Your task to perform on an android device: Open CNN.com Image 0: 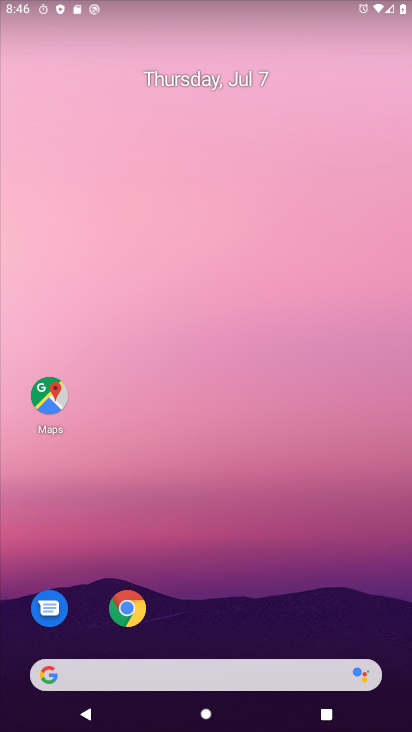
Step 0: press home button
Your task to perform on an android device: Open CNN.com Image 1: 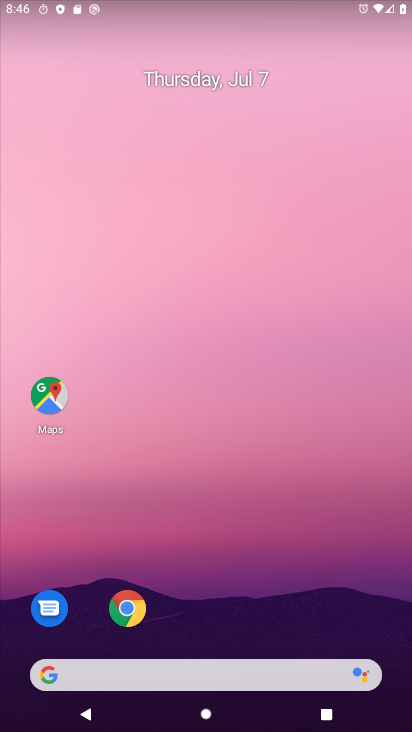
Step 1: drag from (190, 658) to (201, 281)
Your task to perform on an android device: Open CNN.com Image 2: 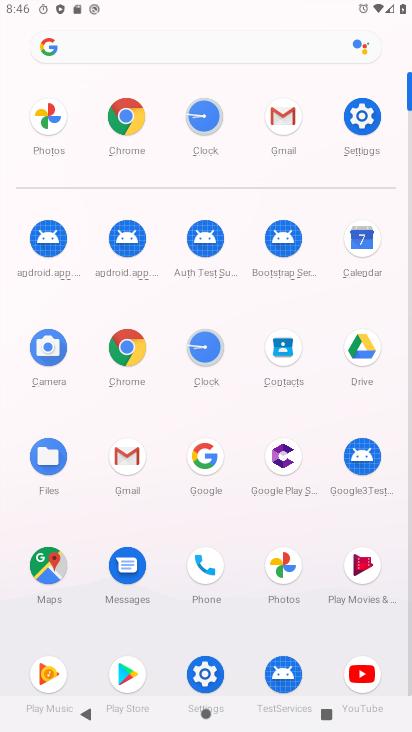
Step 2: click (200, 462)
Your task to perform on an android device: Open CNN.com Image 3: 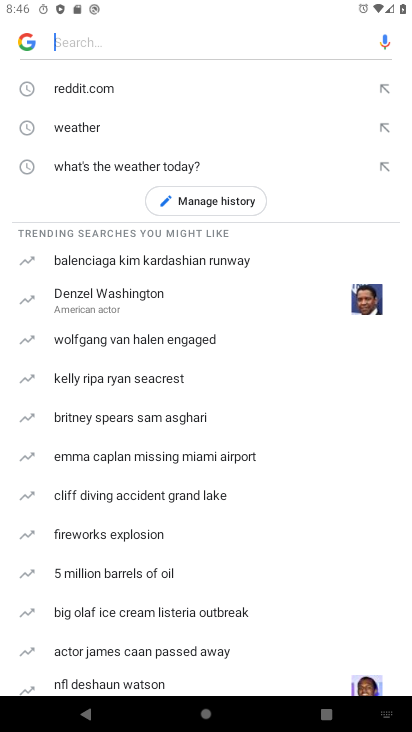
Step 3: click (101, 52)
Your task to perform on an android device: Open CNN.com Image 4: 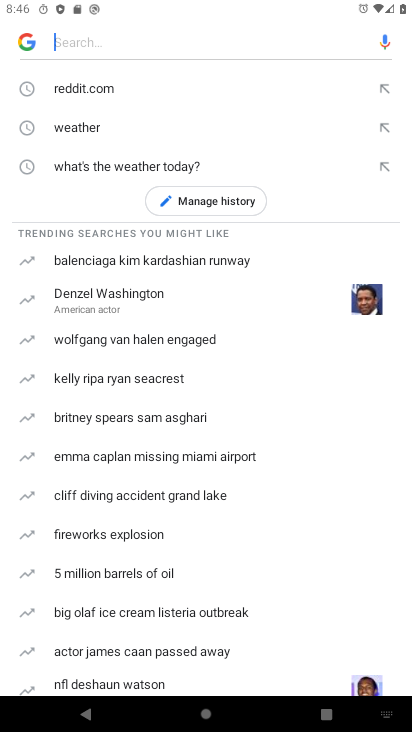
Step 4: type "CNN.com"
Your task to perform on an android device: Open CNN.com Image 5: 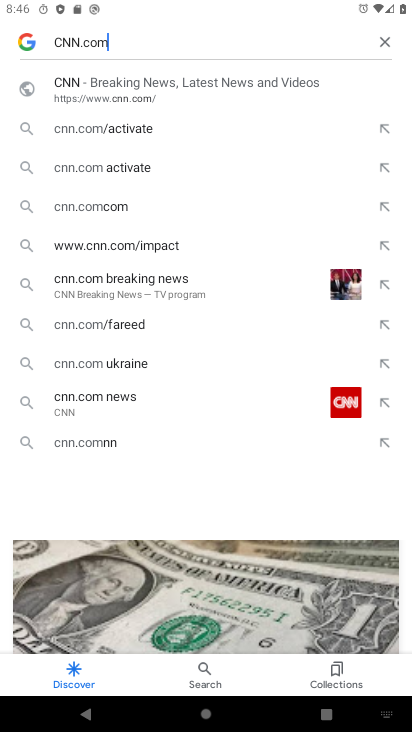
Step 5: click (88, 87)
Your task to perform on an android device: Open CNN.com Image 6: 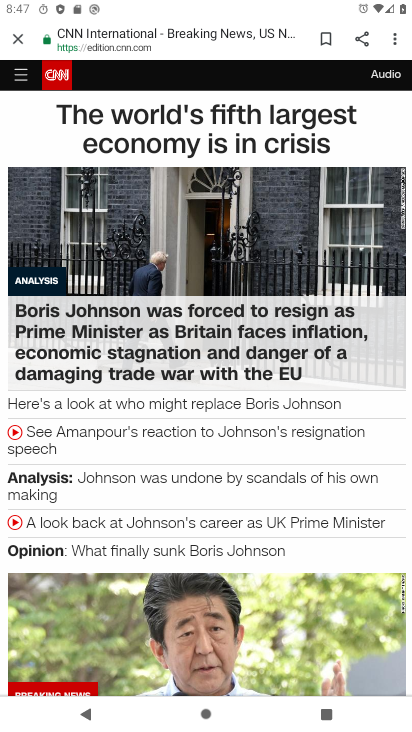
Step 6: task complete